Your task to perform on an android device: Open calendar and show me the fourth week of next month Image 0: 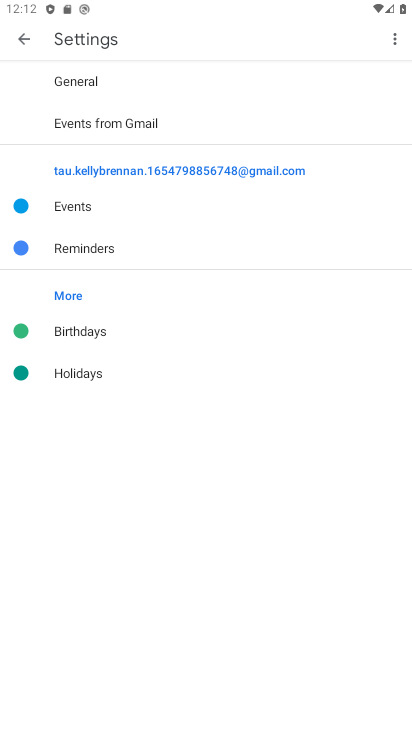
Step 0: press home button
Your task to perform on an android device: Open calendar and show me the fourth week of next month Image 1: 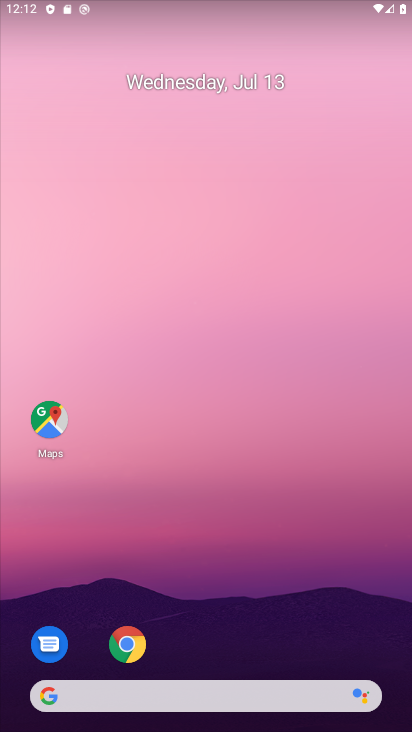
Step 1: drag from (264, 597) to (271, 101)
Your task to perform on an android device: Open calendar and show me the fourth week of next month Image 2: 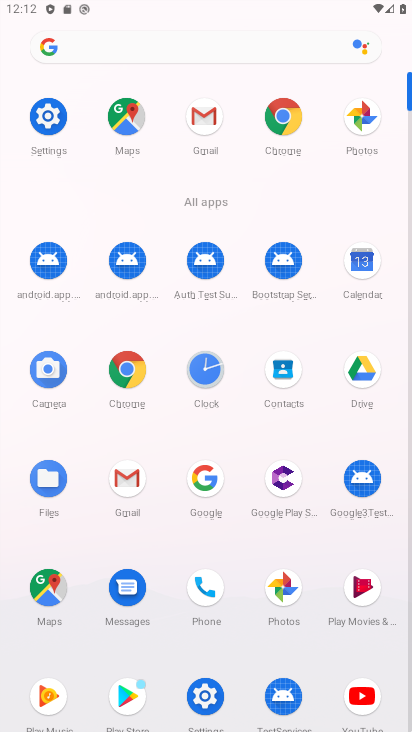
Step 2: click (370, 248)
Your task to perform on an android device: Open calendar and show me the fourth week of next month Image 3: 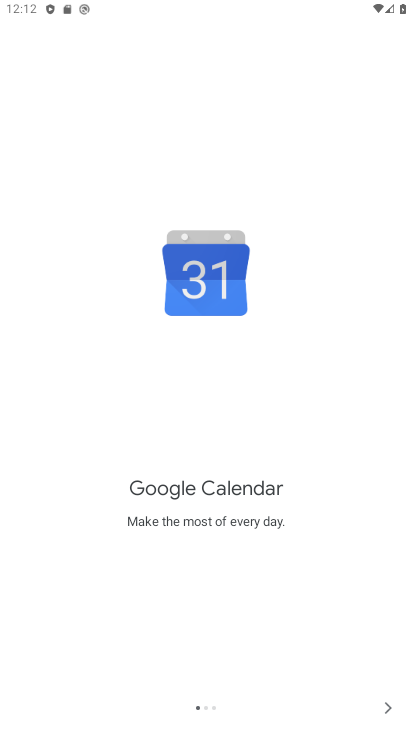
Step 3: click (392, 707)
Your task to perform on an android device: Open calendar and show me the fourth week of next month Image 4: 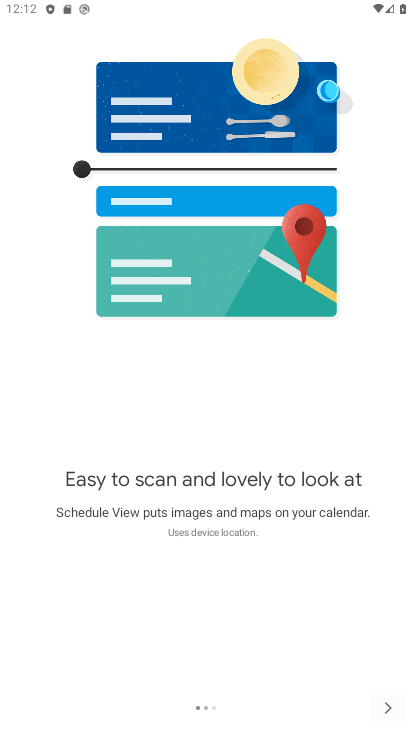
Step 4: click (392, 707)
Your task to perform on an android device: Open calendar and show me the fourth week of next month Image 5: 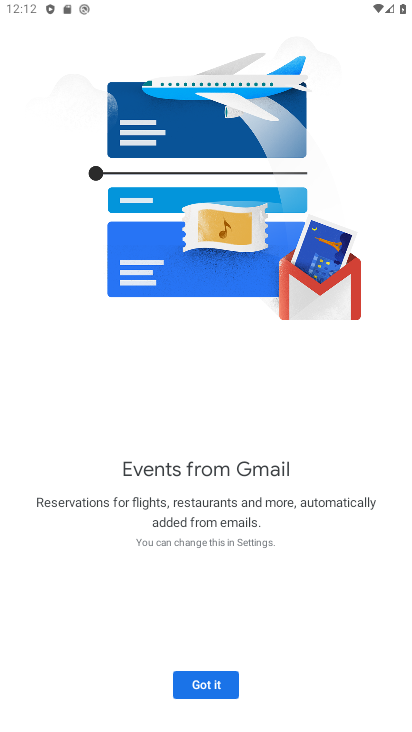
Step 5: click (206, 691)
Your task to perform on an android device: Open calendar and show me the fourth week of next month Image 6: 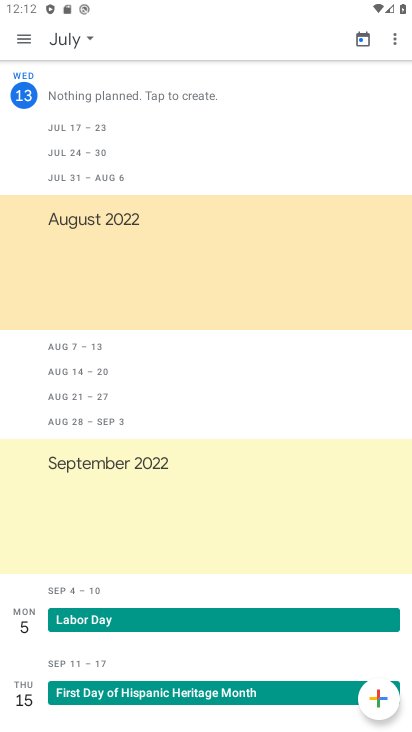
Step 6: click (75, 34)
Your task to perform on an android device: Open calendar and show me the fourth week of next month Image 7: 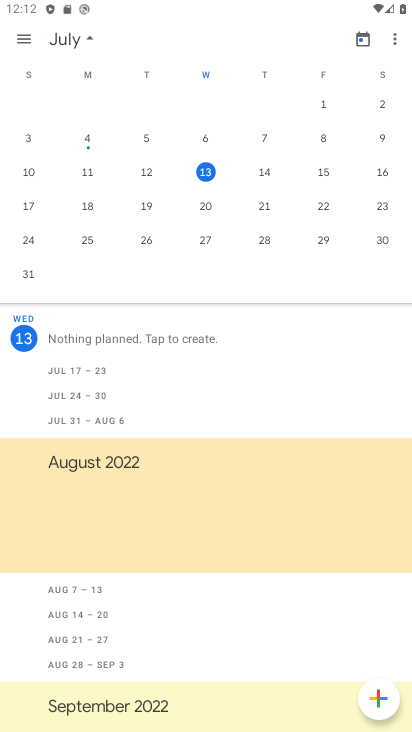
Step 7: drag from (392, 229) to (16, 187)
Your task to perform on an android device: Open calendar and show me the fourth week of next month Image 8: 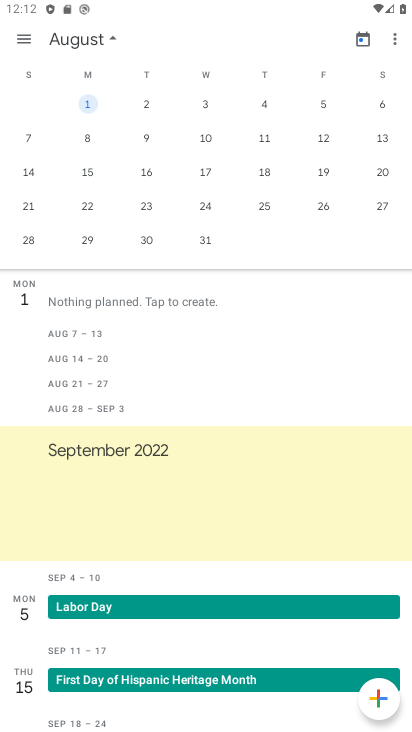
Step 8: click (259, 203)
Your task to perform on an android device: Open calendar and show me the fourth week of next month Image 9: 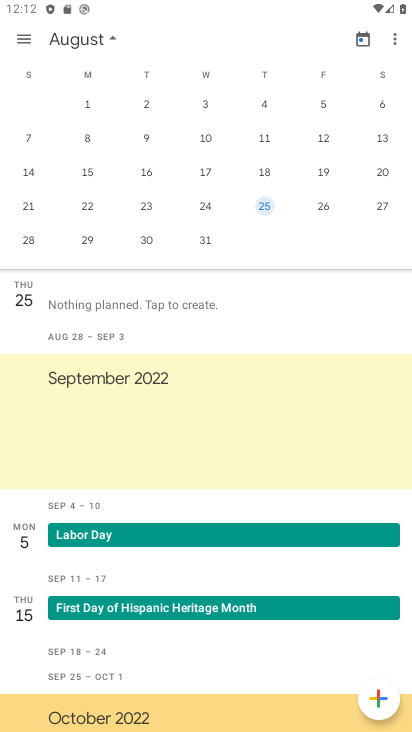
Step 9: click (31, 28)
Your task to perform on an android device: Open calendar and show me the fourth week of next month Image 10: 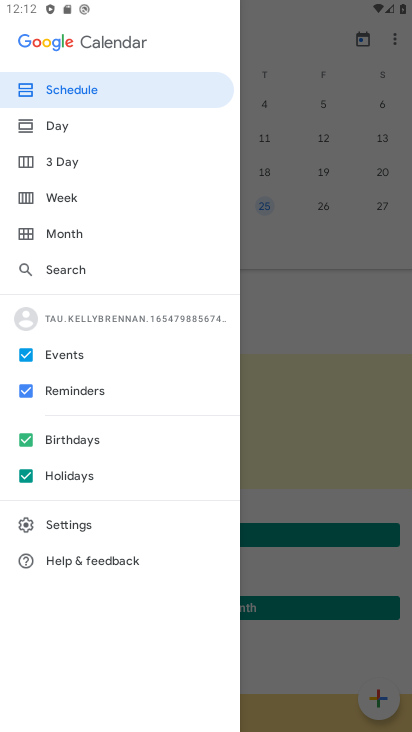
Step 10: click (60, 190)
Your task to perform on an android device: Open calendar and show me the fourth week of next month Image 11: 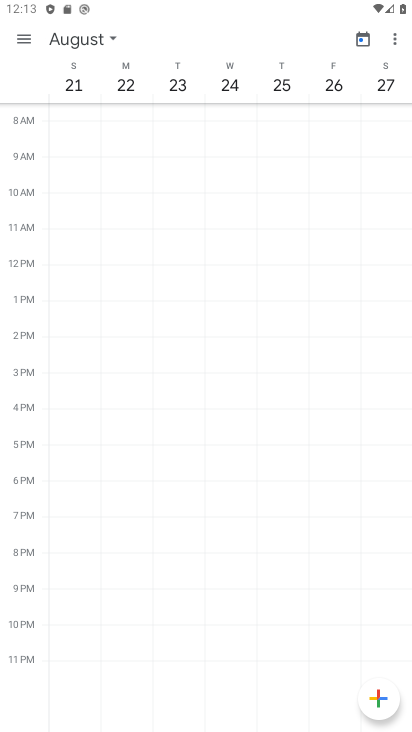
Step 11: task complete